Your task to perform on an android device: move an email to a new category in the gmail app Image 0: 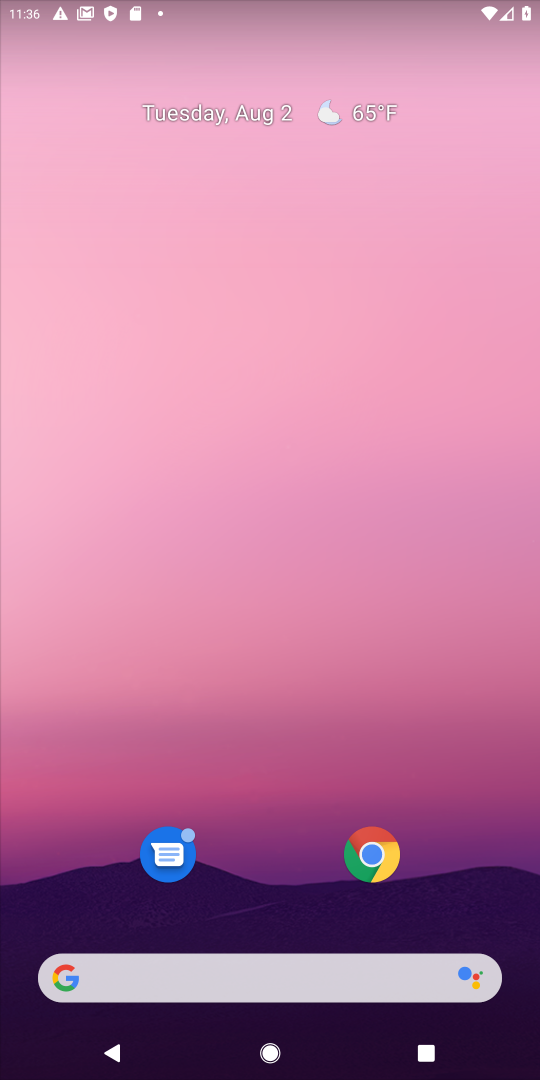
Step 0: drag from (368, 405) to (378, 134)
Your task to perform on an android device: move an email to a new category in the gmail app Image 1: 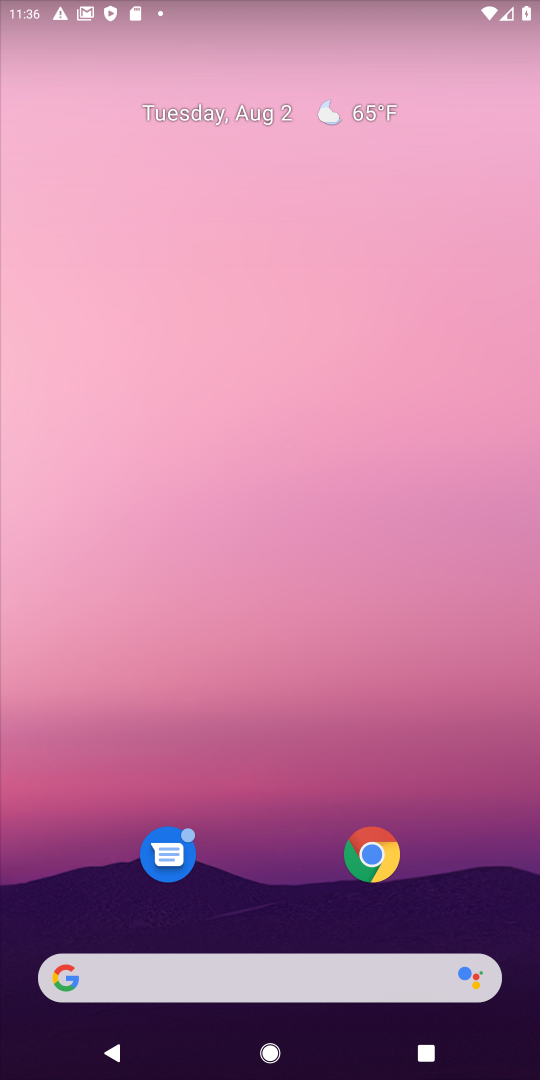
Step 1: drag from (326, 781) to (326, 246)
Your task to perform on an android device: move an email to a new category in the gmail app Image 2: 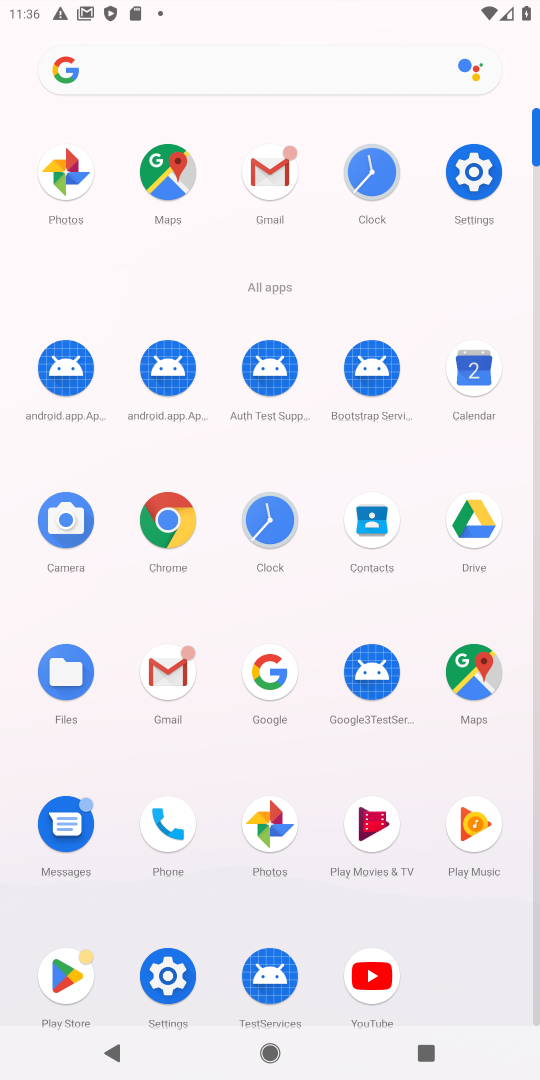
Step 2: click (167, 671)
Your task to perform on an android device: move an email to a new category in the gmail app Image 3: 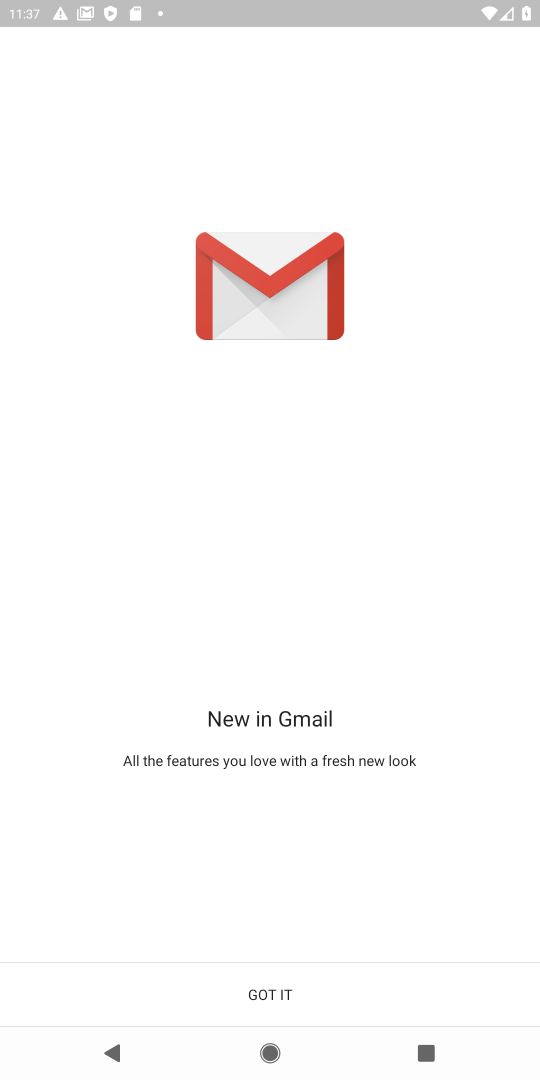
Step 3: click (296, 986)
Your task to perform on an android device: move an email to a new category in the gmail app Image 4: 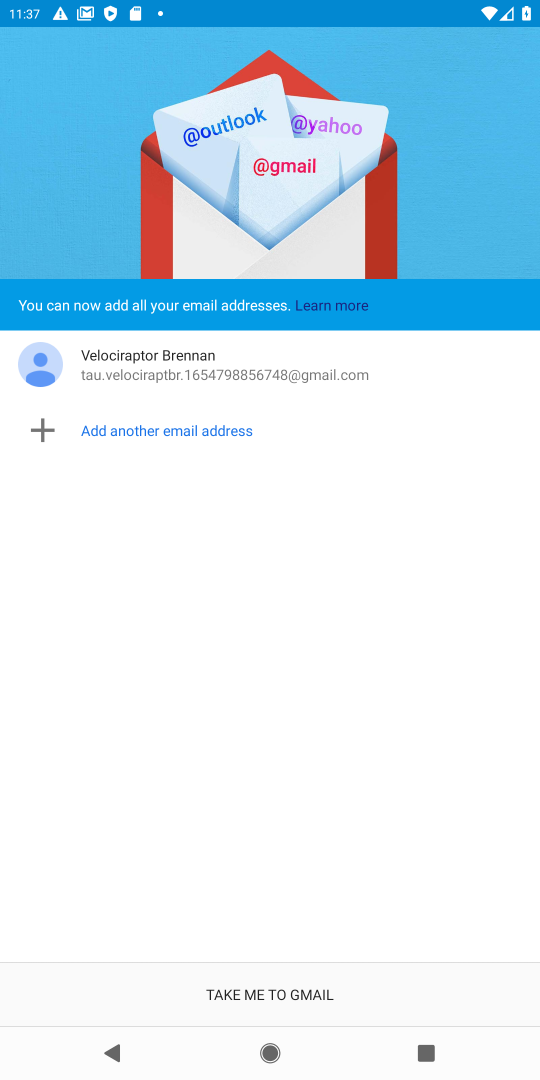
Step 4: click (297, 991)
Your task to perform on an android device: move an email to a new category in the gmail app Image 5: 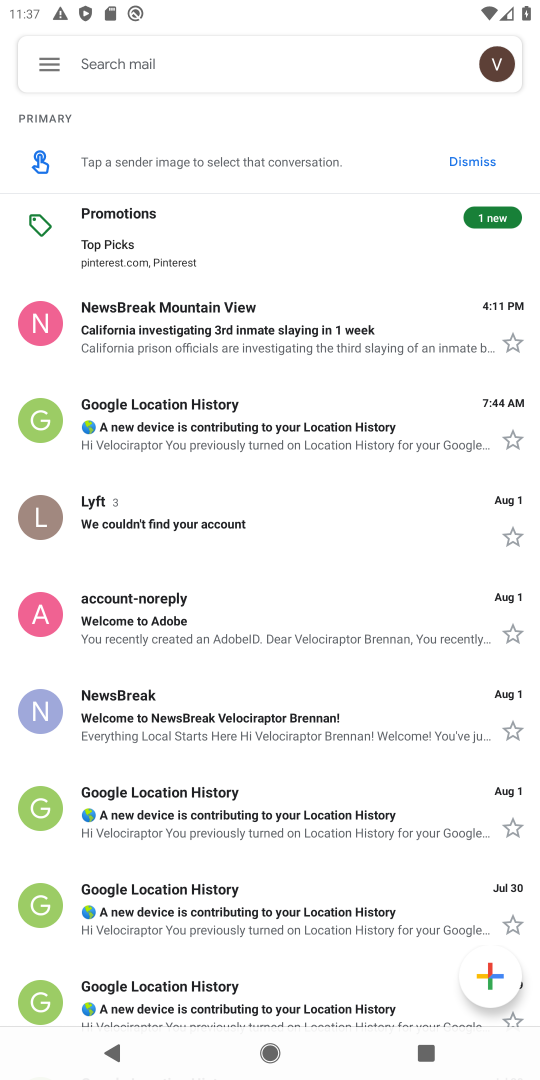
Step 5: click (50, 328)
Your task to perform on an android device: move an email to a new category in the gmail app Image 6: 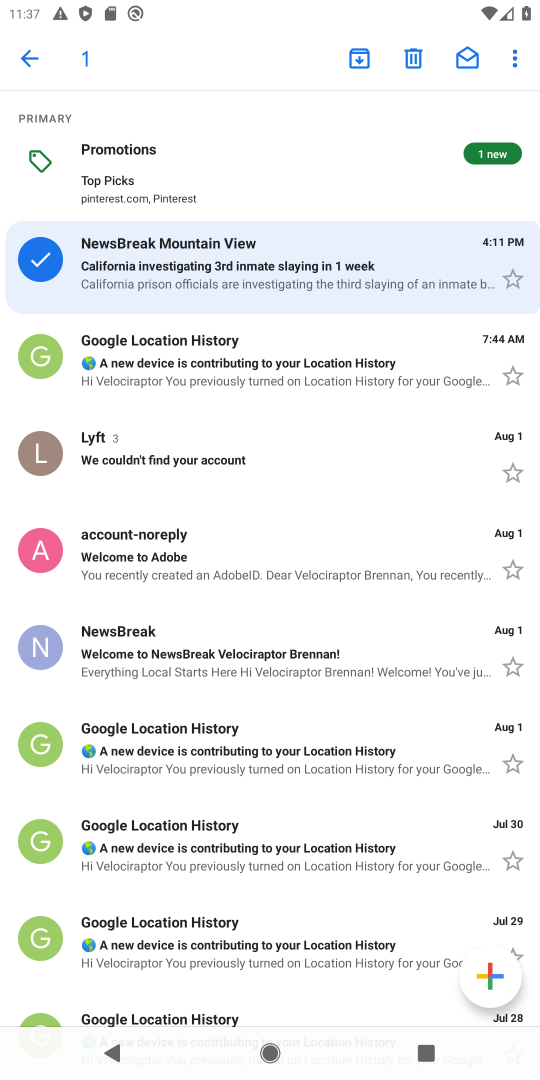
Step 6: click (510, 61)
Your task to perform on an android device: move an email to a new category in the gmail app Image 7: 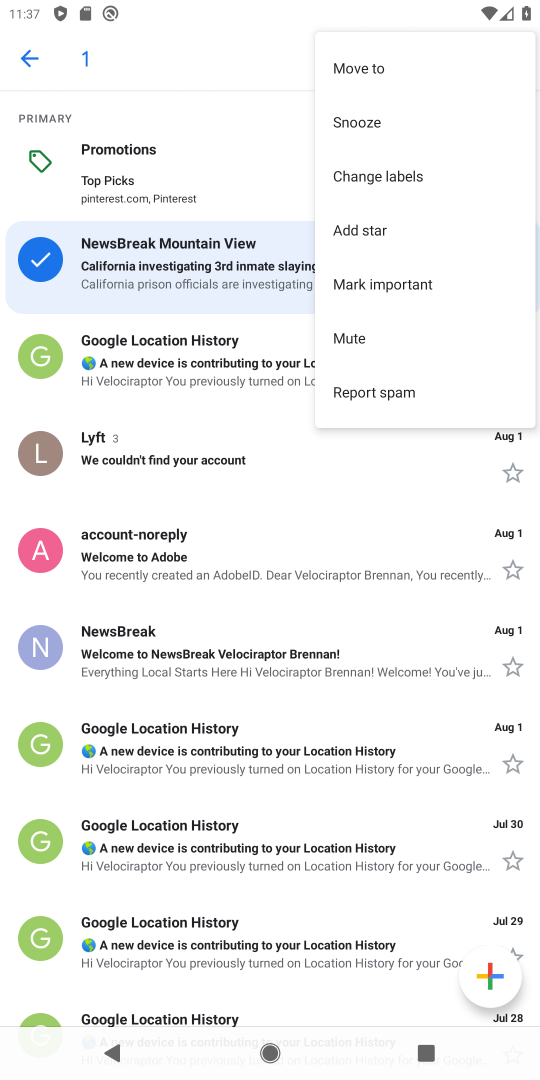
Step 7: click (441, 70)
Your task to perform on an android device: move an email to a new category in the gmail app Image 8: 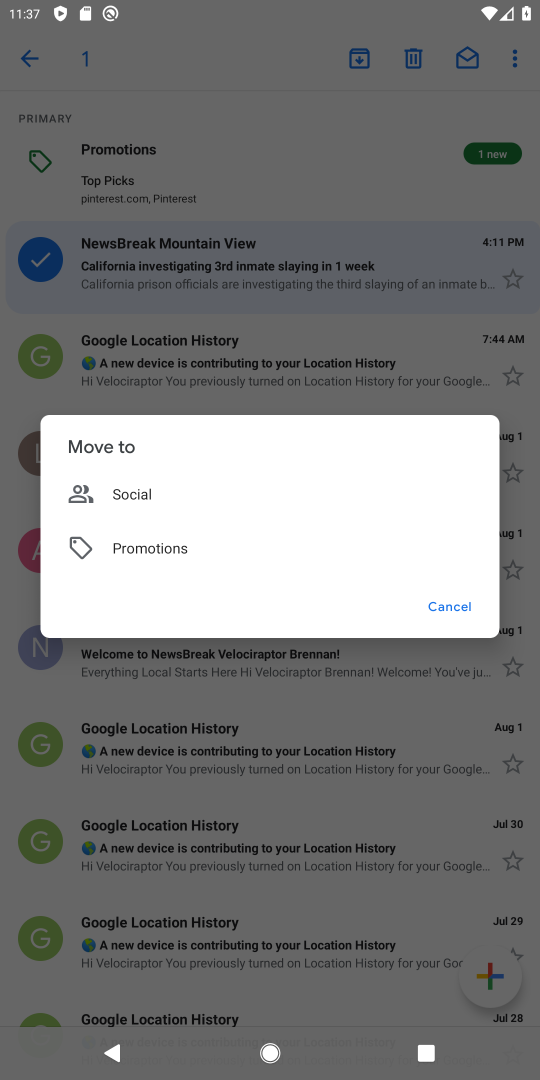
Step 8: click (160, 555)
Your task to perform on an android device: move an email to a new category in the gmail app Image 9: 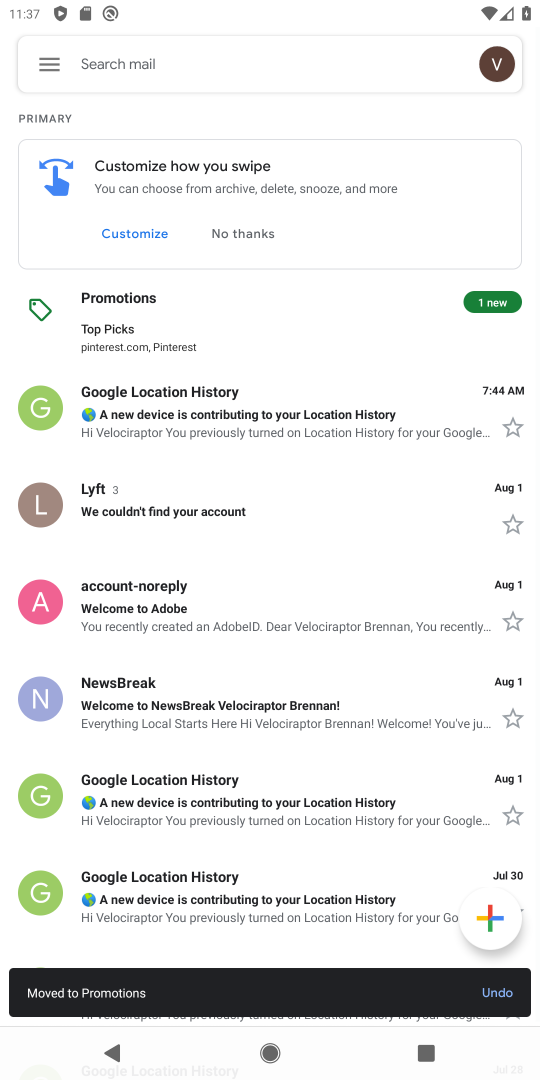
Step 9: task complete